Your task to perform on an android device: delete browsing data in the chrome app Image 0: 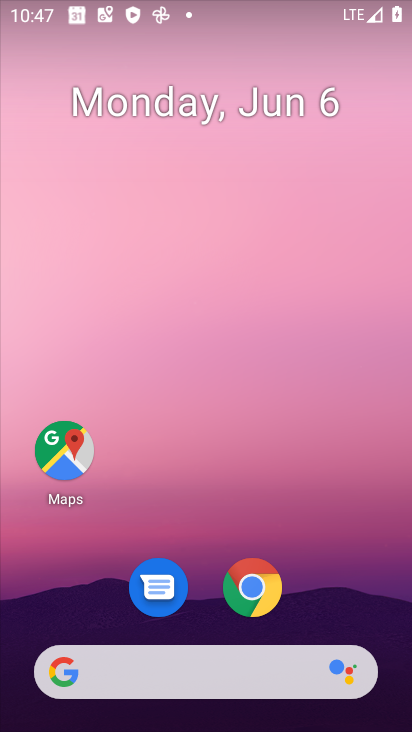
Step 0: click (244, 561)
Your task to perform on an android device: delete browsing data in the chrome app Image 1: 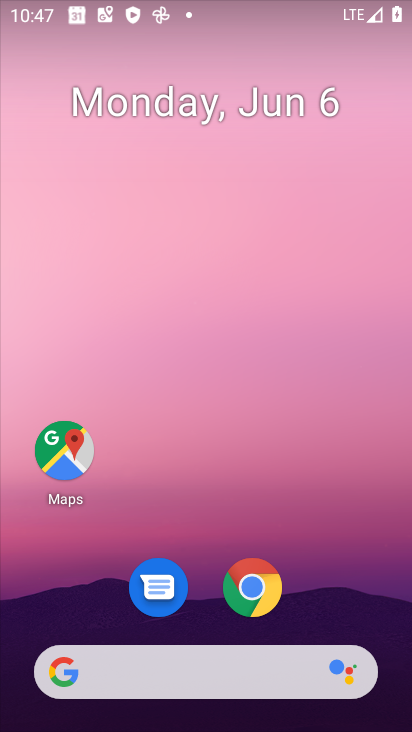
Step 1: click (244, 561)
Your task to perform on an android device: delete browsing data in the chrome app Image 2: 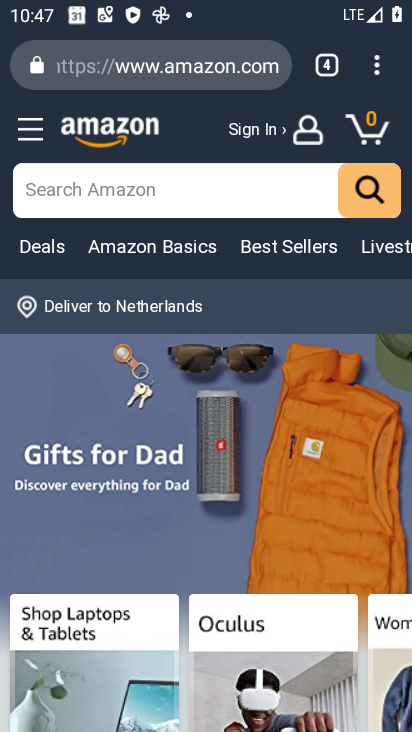
Step 2: click (374, 58)
Your task to perform on an android device: delete browsing data in the chrome app Image 3: 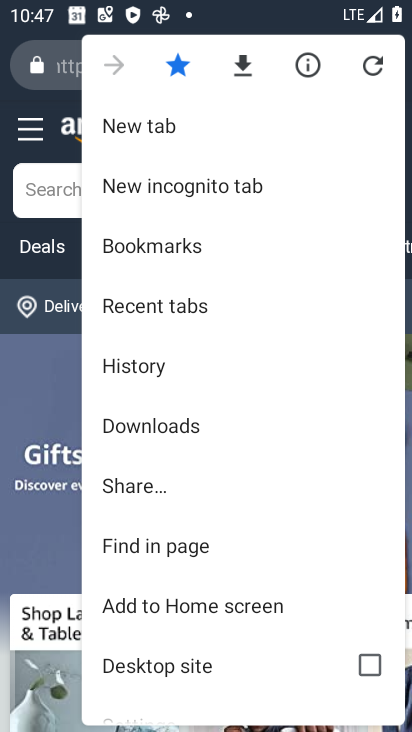
Step 3: click (154, 359)
Your task to perform on an android device: delete browsing data in the chrome app Image 4: 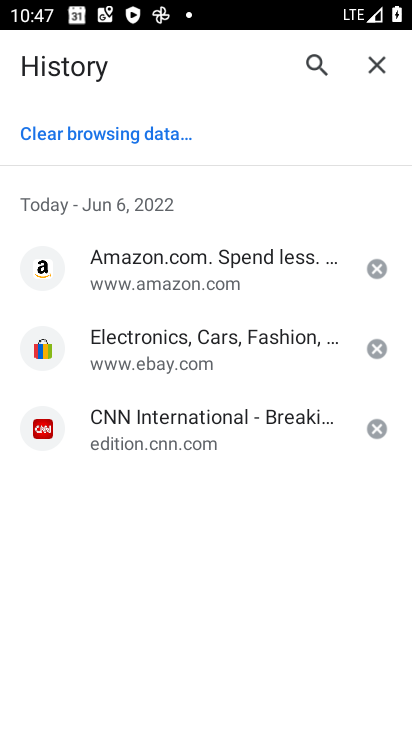
Step 4: click (128, 142)
Your task to perform on an android device: delete browsing data in the chrome app Image 5: 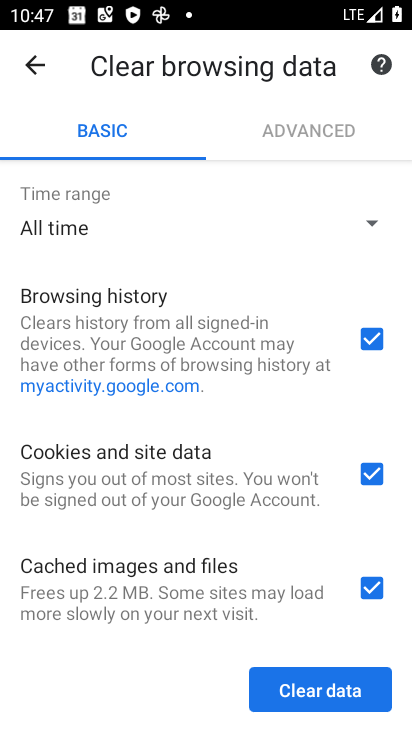
Step 5: click (320, 683)
Your task to perform on an android device: delete browsing data in the chrome app Image 6: 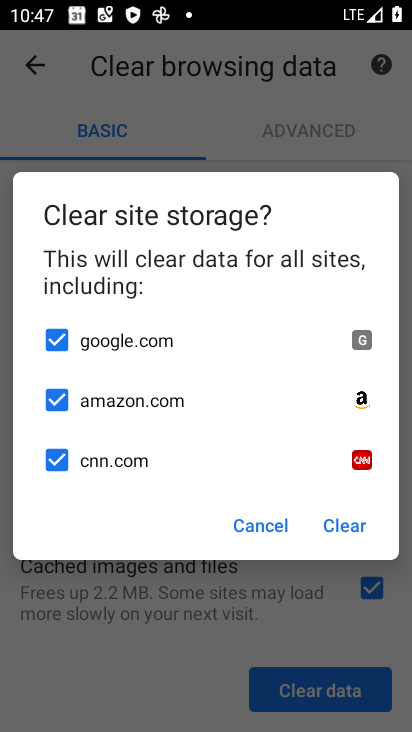
Step 6: click (351, 528)
Your task to perform on an android device: delete browsing data in the chrome app Image 7: 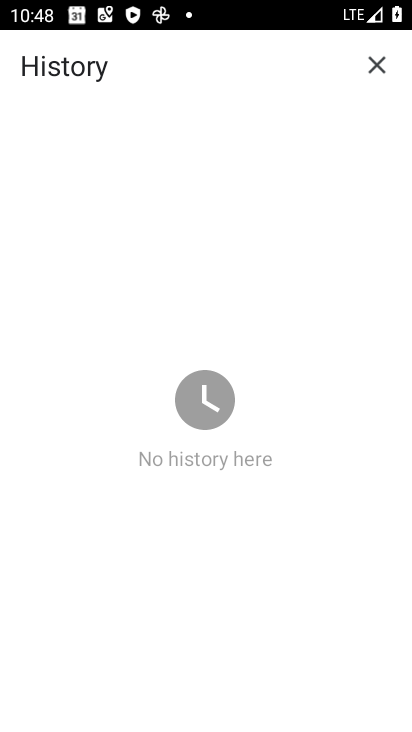
Step 7: task complete